Your task to perform on an android device: Check the weather Image 0: 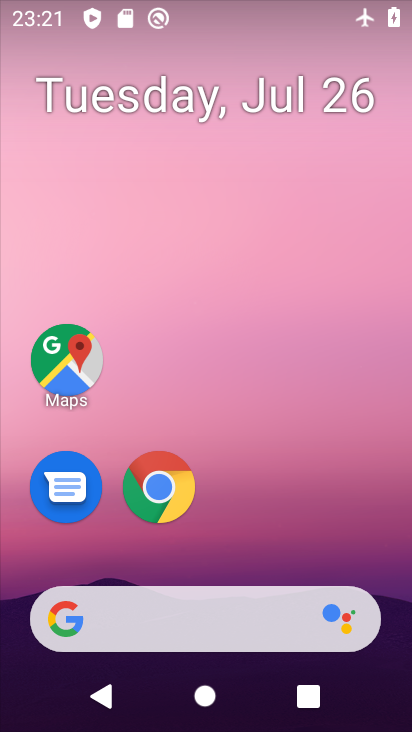
Step 0: click (151, 629)
Your task to perform on an android device: Check the weather Image 1: 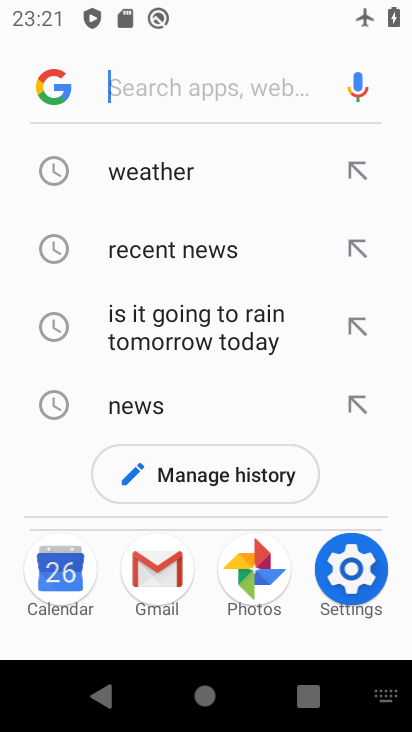
Step 1: click (168, 178)
Your task to perform on an android device: Check the weather Image 2: 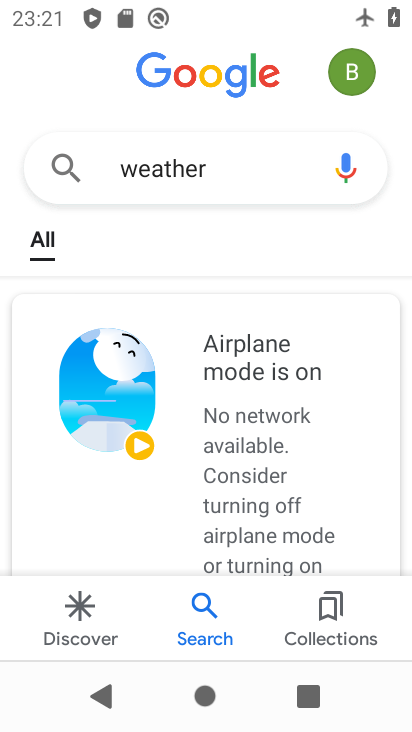
Step 2: drag from (363, 10) to (290, 600)
Your task to perform on an android device: Check the weather Image 3: 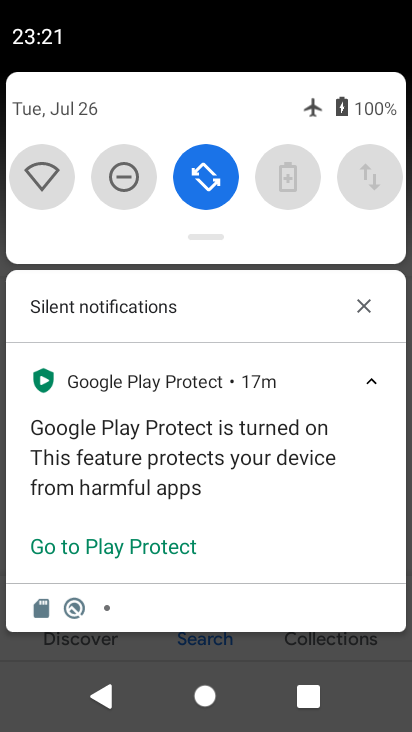
Step 3: drag from (214, 231) to (210, 722)
Your task to perform on an android device: Check the weather Image 4: 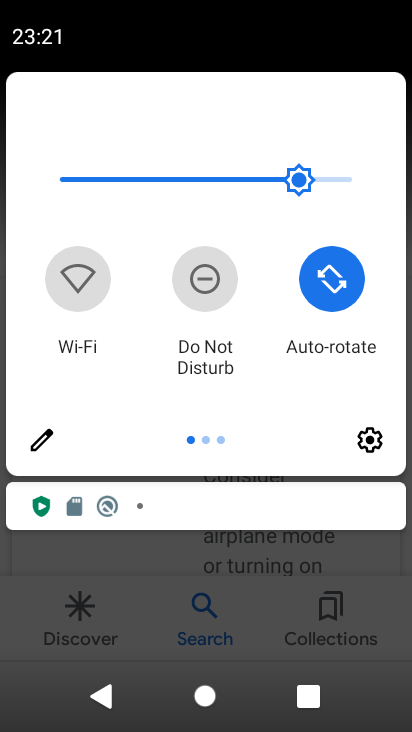
Step 4: drag from (371, 282) to (0, 287)
Your task to perform on an android device: Check the weather Image 5: 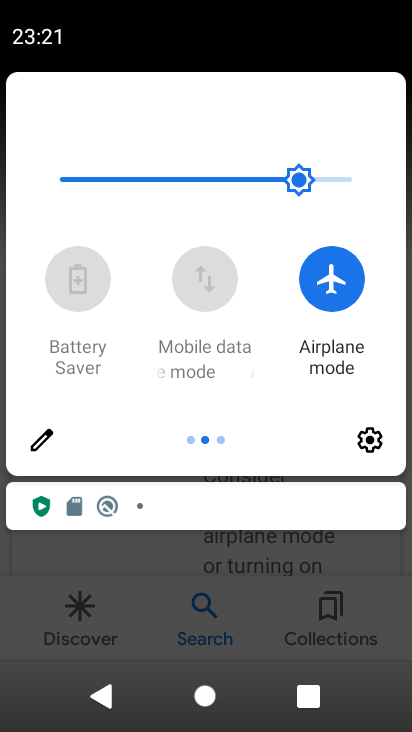
Step 5: click (332, 274)
Your task to perform on an android device: Check the weather Image 6: 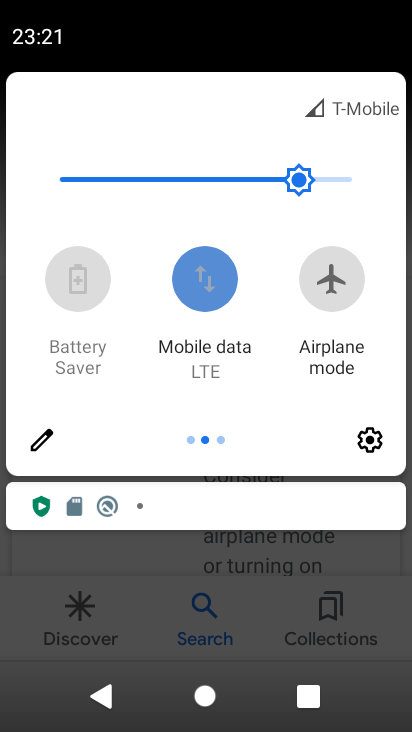
Step 6: click (140, 564)
Your task to perform on an android device: Check the weather Image 7: 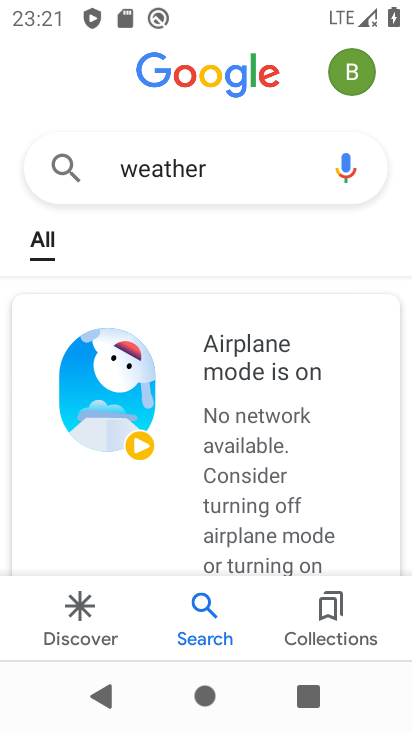
Step 7: drag from (227, 509) to (230, 196)
Your task to perform on an android device: Check the weather Image 8: 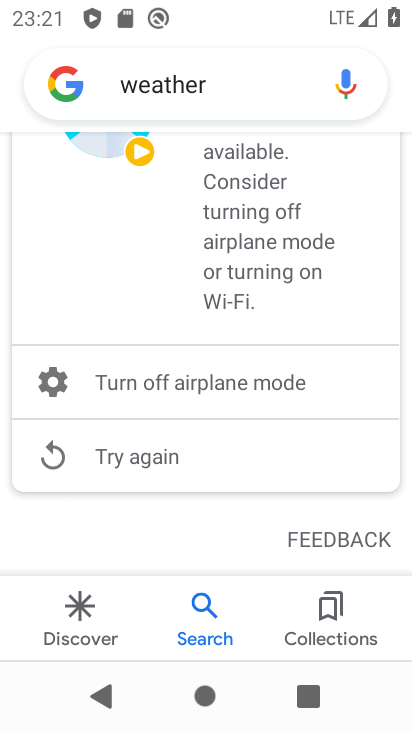
Step 8: click (83, 457)
Your task to perform on an android device: Check the weather Image 9: 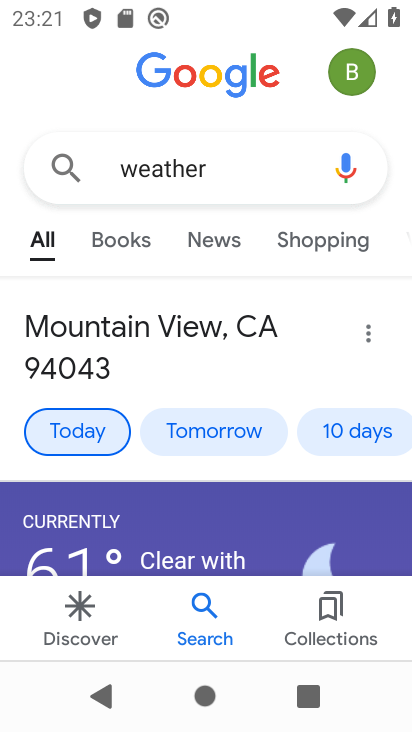
Step 9: task complete